Your task to perform on an android device: install app "Adobe Express: Graphic Design" Image 0: 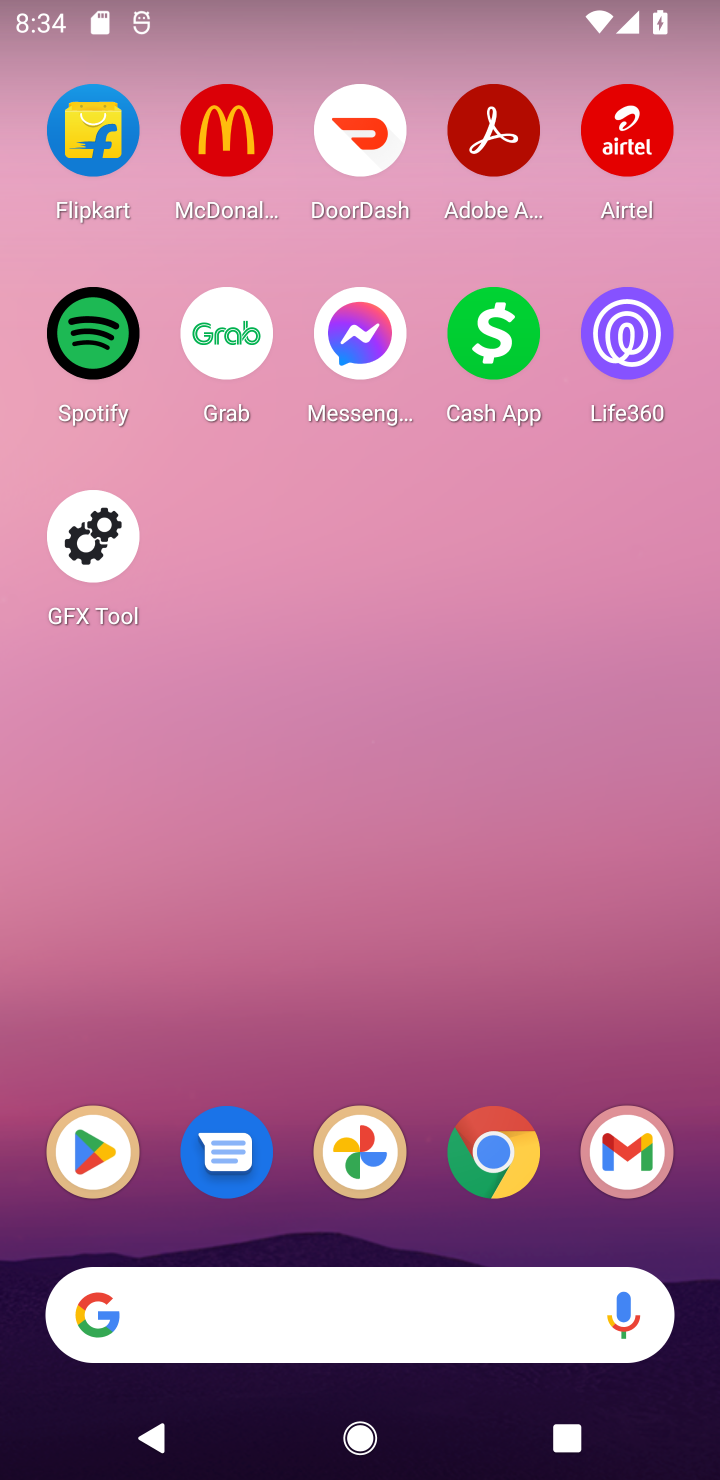
Step 0: click (98, 1157)
Your task to perform on an android device: install app "Adobe Express: Graphic Design" Image 1: 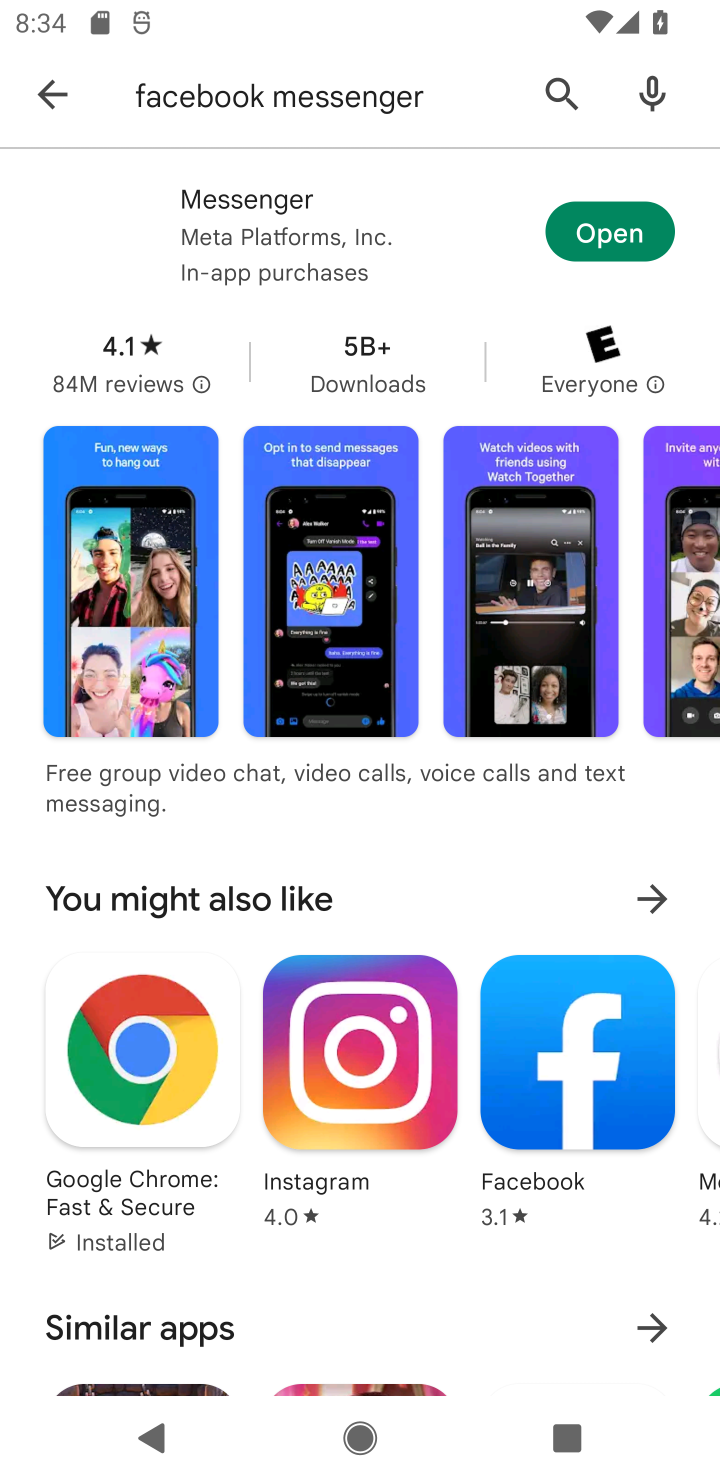
Step 1: click (48, 88)
Your task to perform on an android device: install app "Adobe Express: Graphic Design" Image 2: 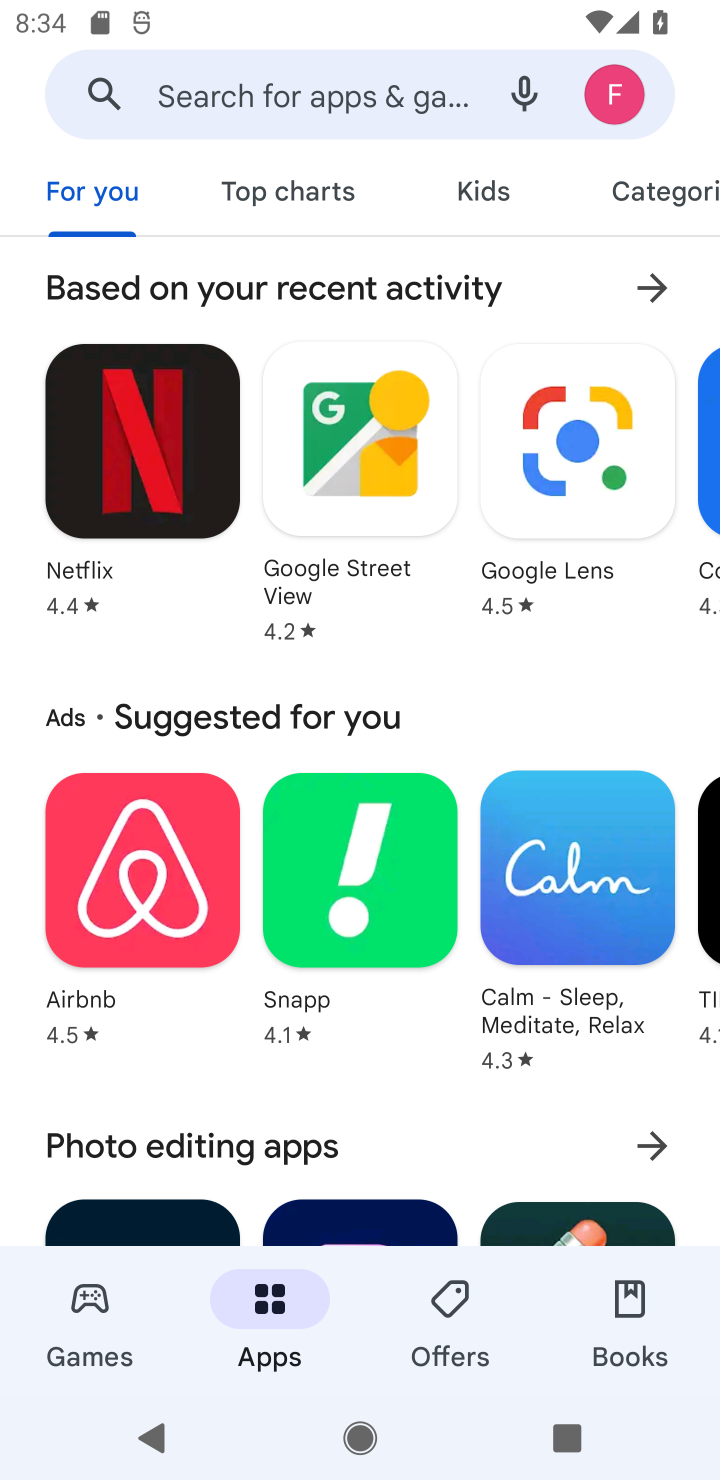
Step 2: click (302, 93)
Your task to perform on an android device: install app "Adobe Express: Graphic Design" Image 3: 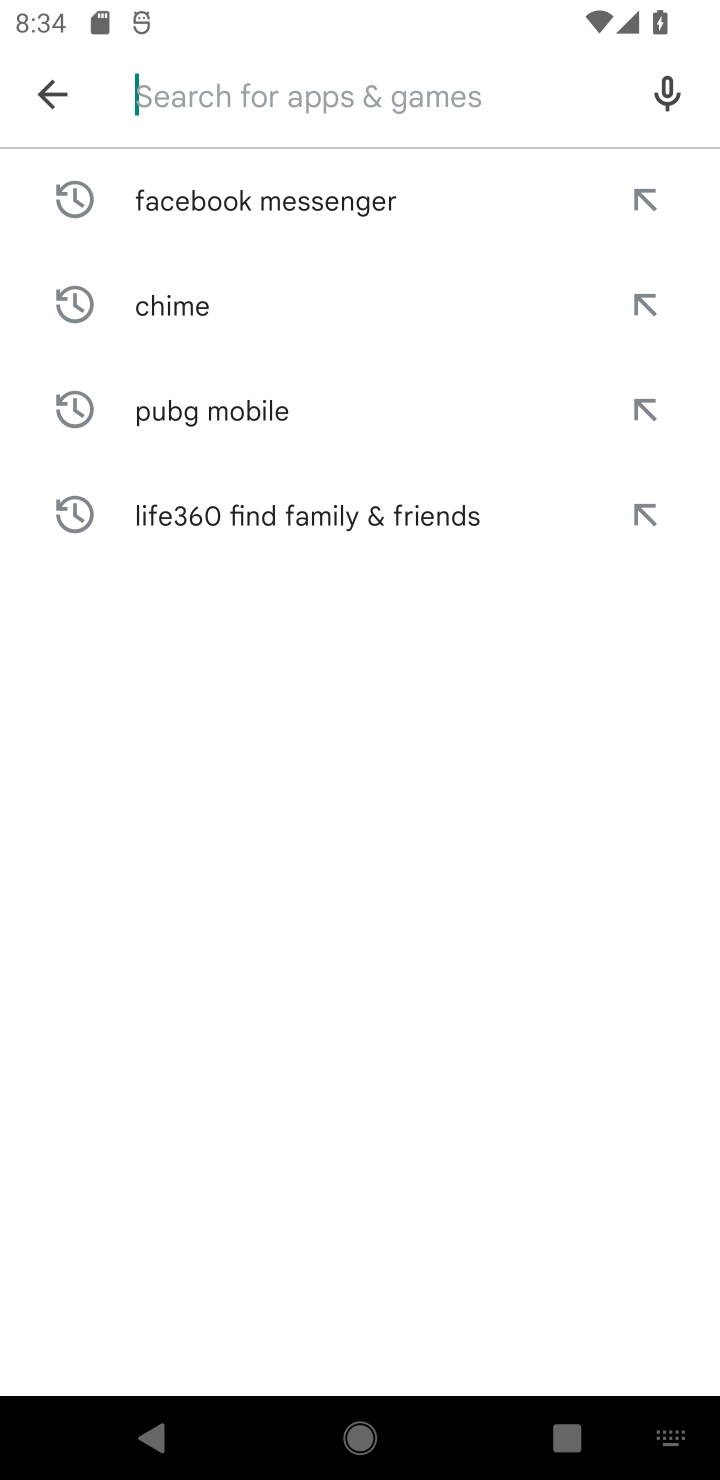
Step 3: type "Adobe Express: Graphic Design"
Your task to perform on an android device: install app "Adobe Express: Graphic Design" Image 4: 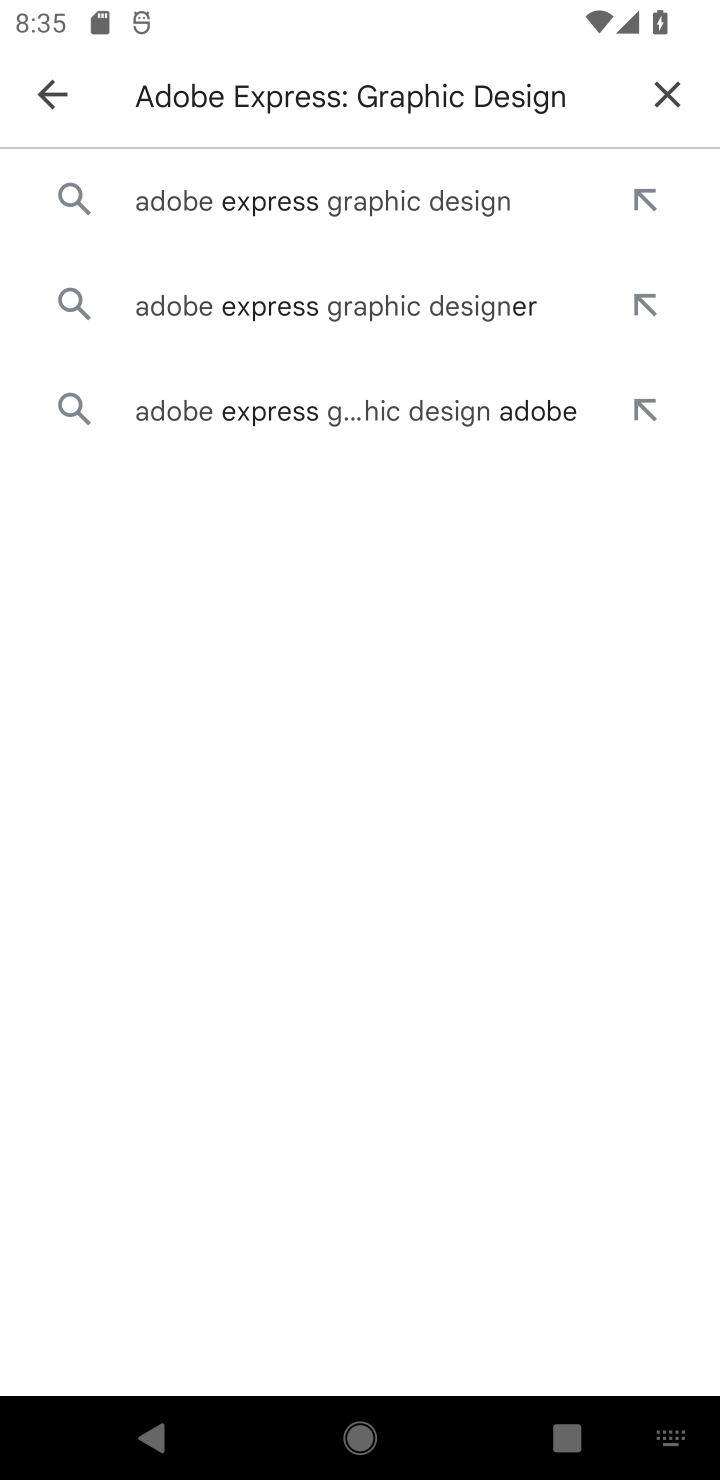
Step 4: click (380, 202)
Your task to perform on an android device: install app "Adobe Express: Graphic Design" Image 5: 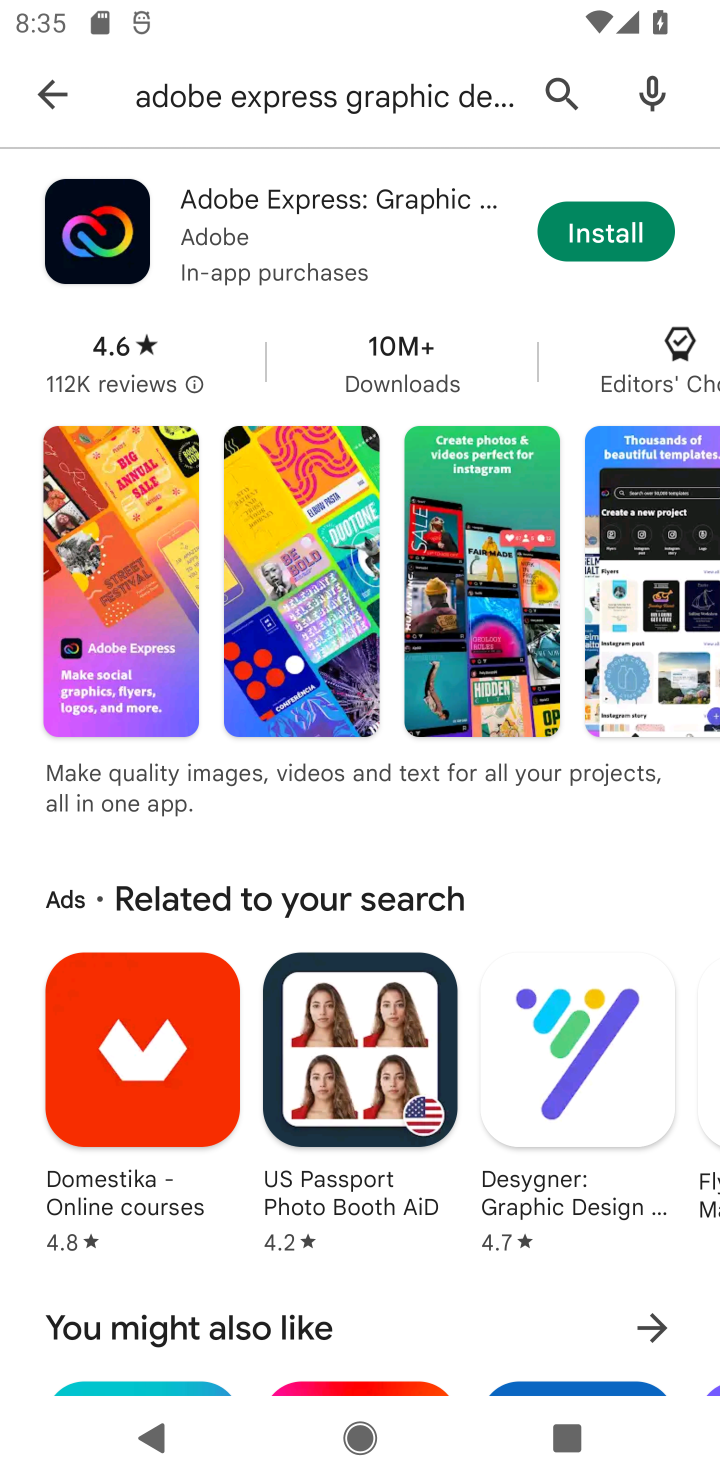
Step 5: click (606, 243)
Your task to perform on an android device: install app "Adobe Express: Graphic Design" Image 6: 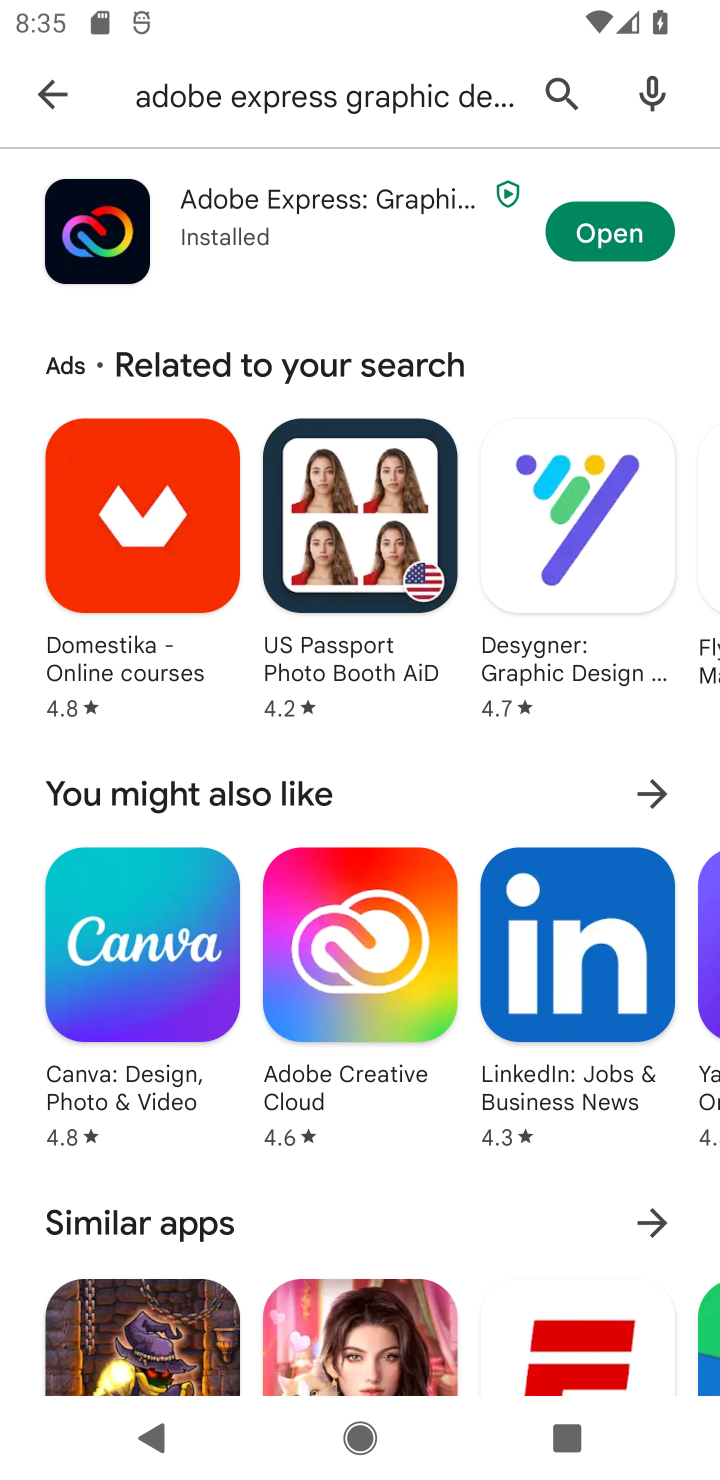
Step 6: click (606, 243)
Your task to perform on an android device: install app "Adobe Express: Graphic Design" Image 7: 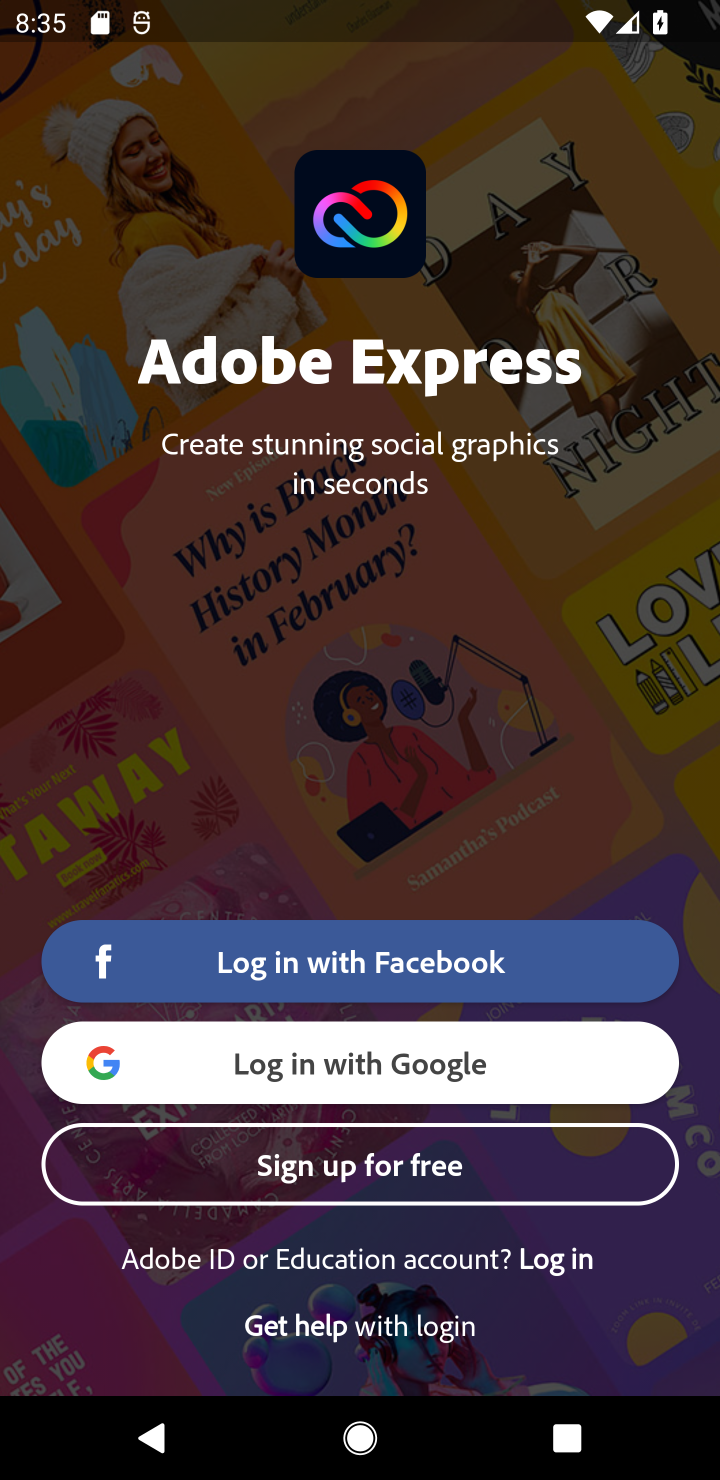
Step 7: task complete